Your task to perform on an android device: Open Amazon Image 0: 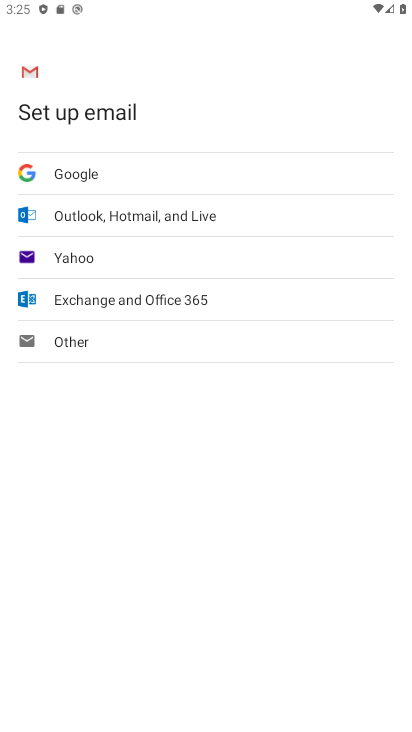
Step 0: press home button
Your task to perform on an android device: Open Amazon Image 1: 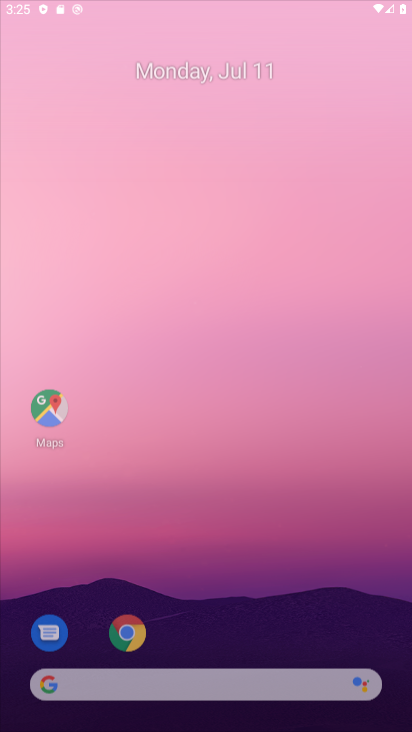
Step 1: press home button
Your task to perform on an android device: Open Amazon Image 2: 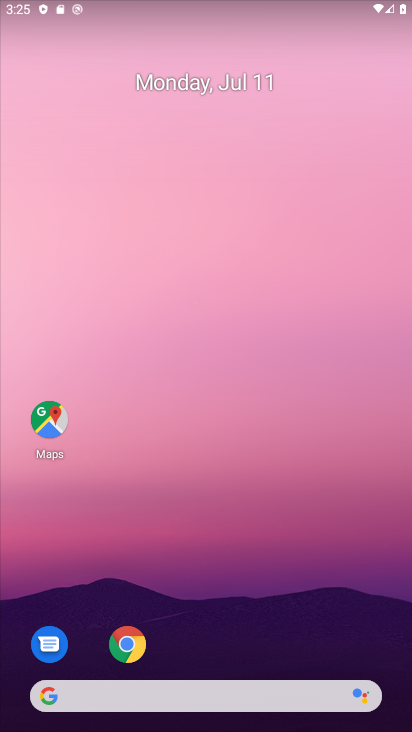
Step 2: drag from (242, 517) to (242, 326)
Your task to perform on an android device: Open Amazon Image 3: 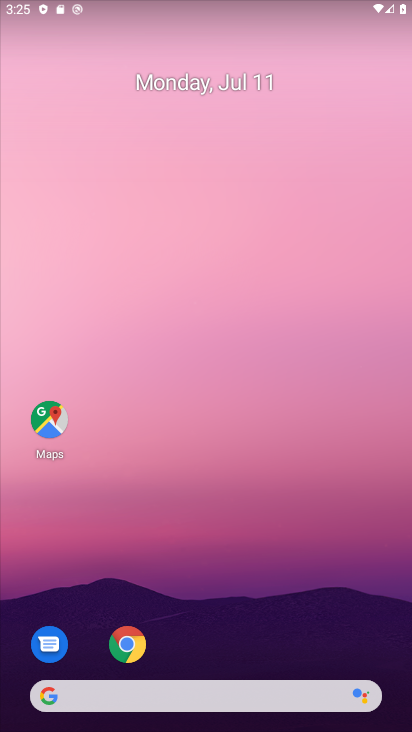
Step 3: drag from (165, 627) to (165, 207)
Your task to perform on an android device: Open Amazon Image 4: 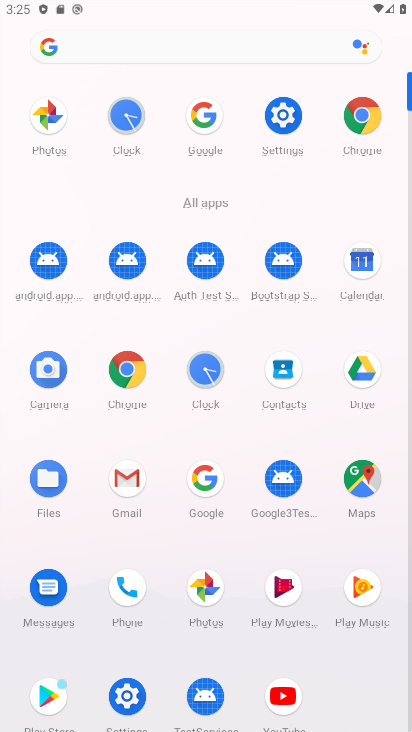
Step 4: click (375, 107)
Your task to perform on an android device: Open Amazon Image 5: 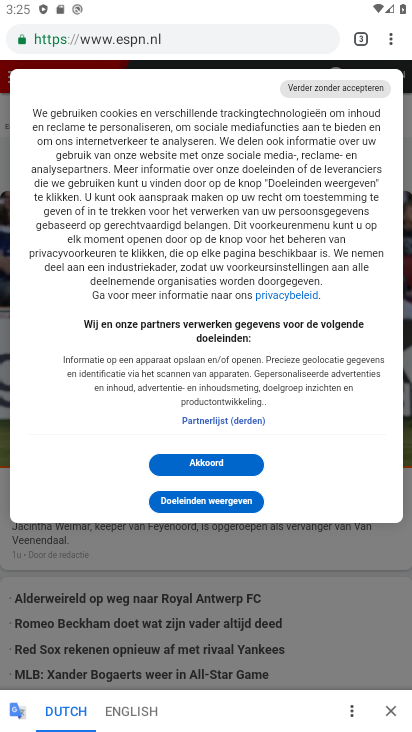
Step 5: click (391, 38)
Your task to perform on an android device: Open Amazon Image 6: 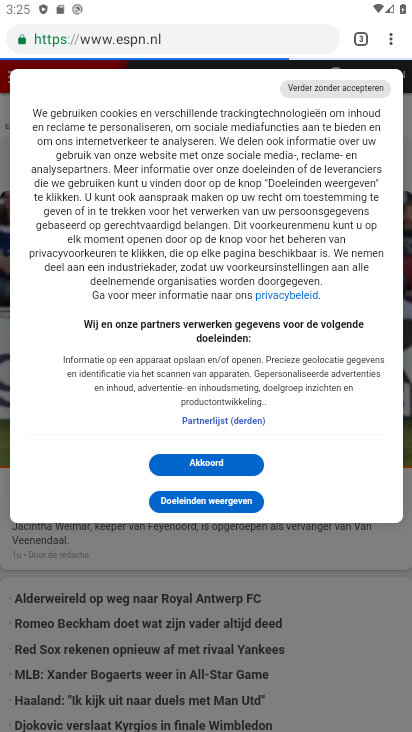
Step 6: click (381, 39)
Your task to perform on an android device: Open Amazon Image 7: 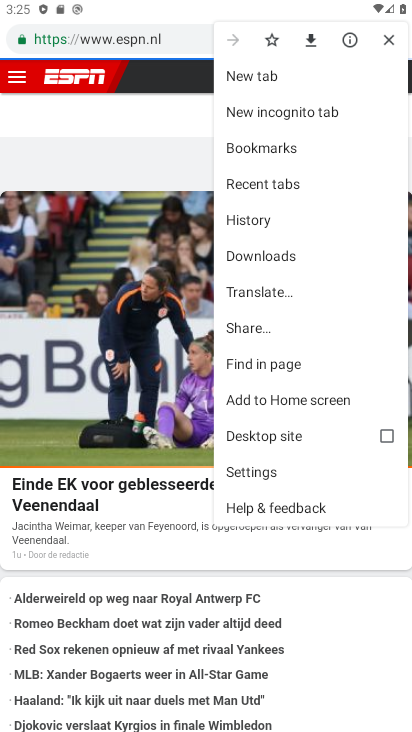
Step 7: click (266, 75)
Your task to perform on an android device: Open Amazon Image 8: 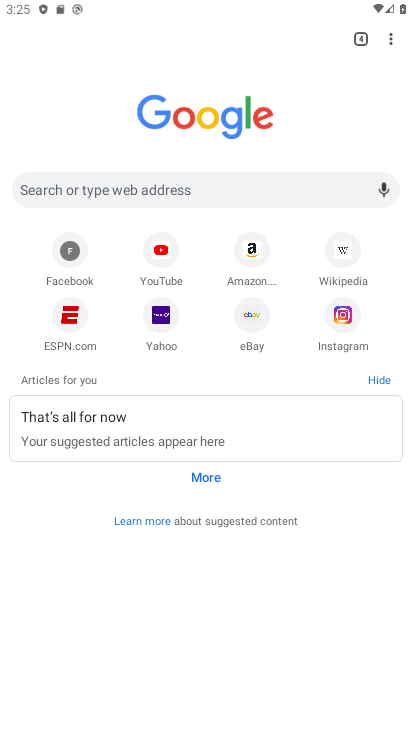
Step 8: click (253, 240)
Your task to perform on an android device: Open Amazon Image 9: 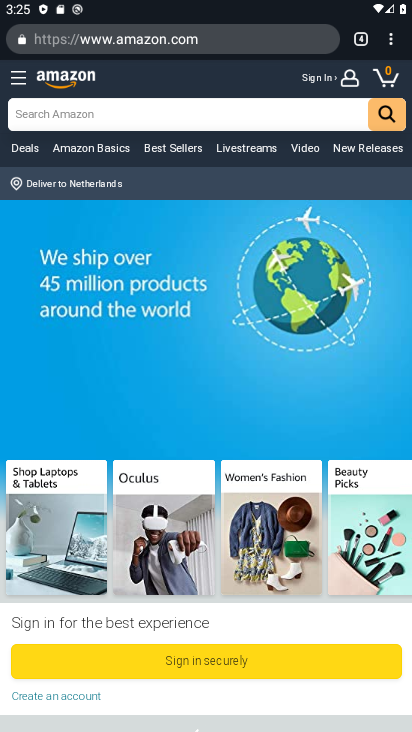
Step 9: task complete